Your task to perform on an android device: Open Yahoo.com Image 0: 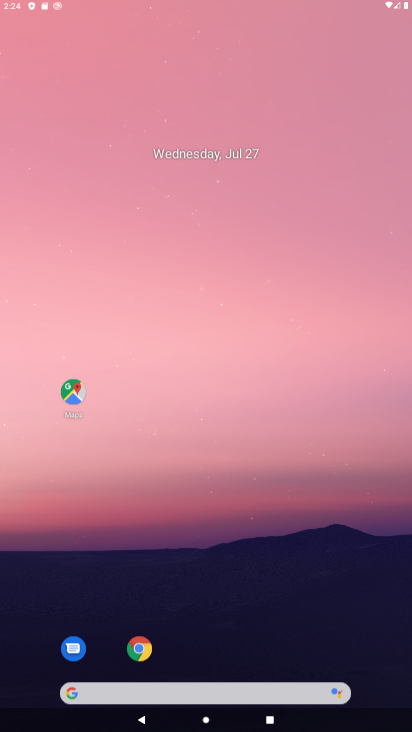
Step 0: press home button
Your task to perform on an android device: Open Yahoo.com Image 1: 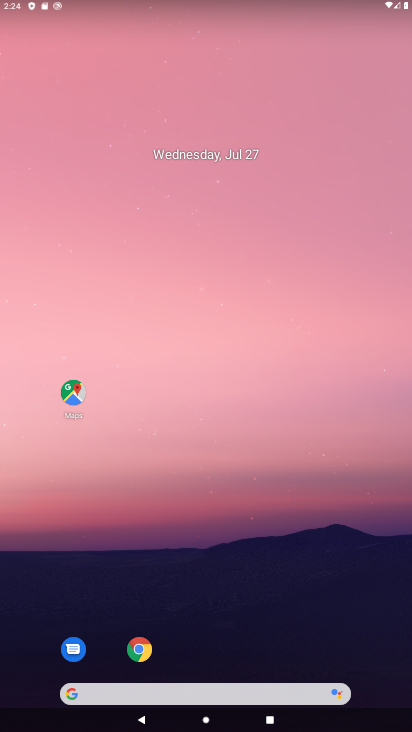
Step 1: drag from (318, 618) to (260, 10)
Your task to perform on an android device: Open Yahoo.com Image 2: 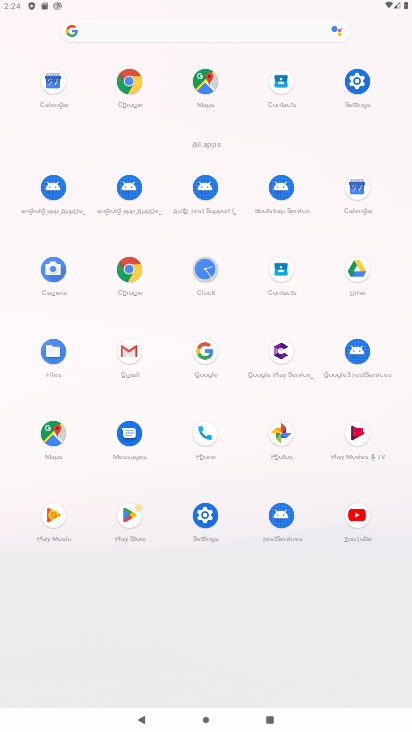
Step 2: click (195, 355)
Your task to perform on an android device: Open Yahoo.com Image 3: 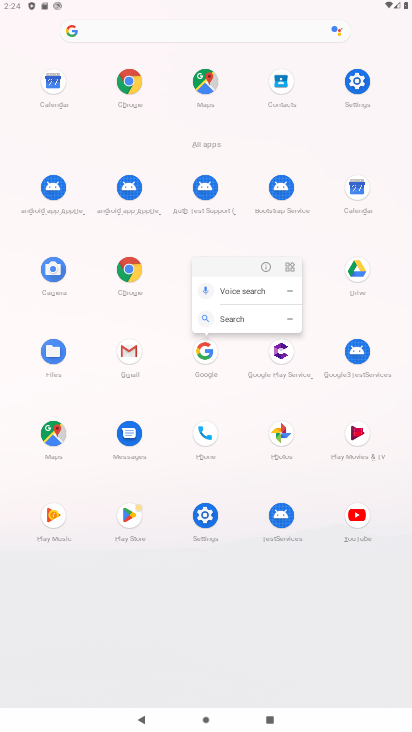
Step 3: click (200, 358)
Your task to perform on an android device: Open Yahoo.com Image 4: 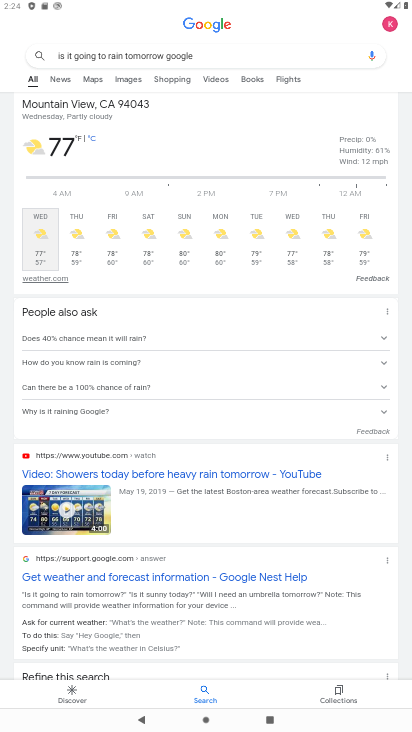
Step 4: press back button
Your task to perform on an android device: Open Yahoo.com Image 5: 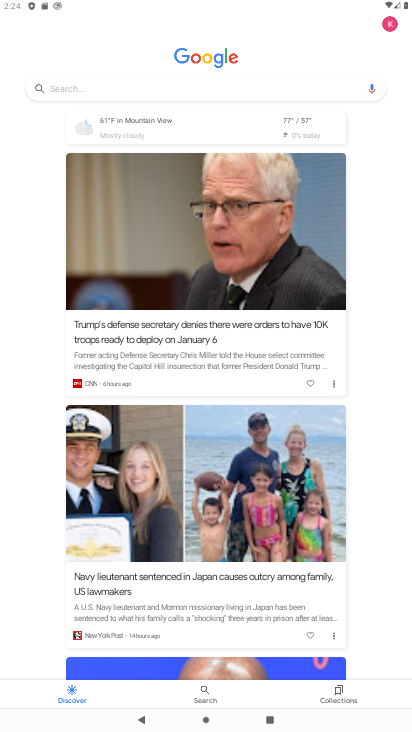
Step 5: click (113, 82)
Your task to perform on an android device: Open Yahoo.com Image 6: 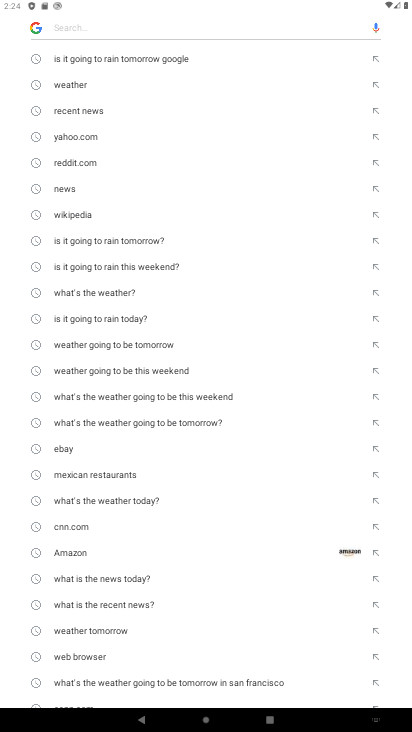
Step 6: type "Yahoo.com"
Your task to perform on an android device: Open Yahoo.com Image 7: 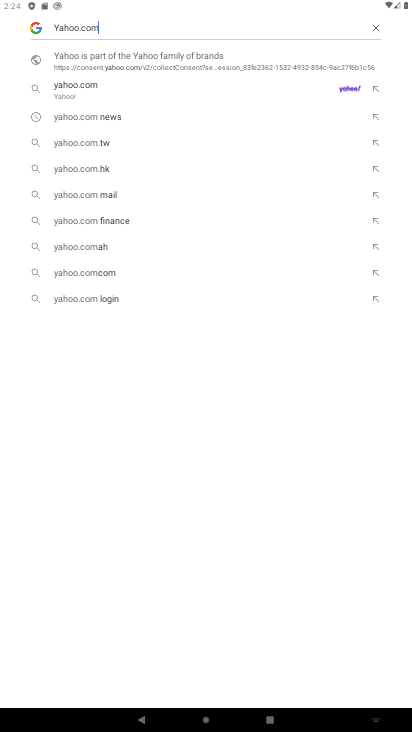
Step 7: click (95, 93)
Your task to perform on an android device: Open Yahoo.com Image 8: 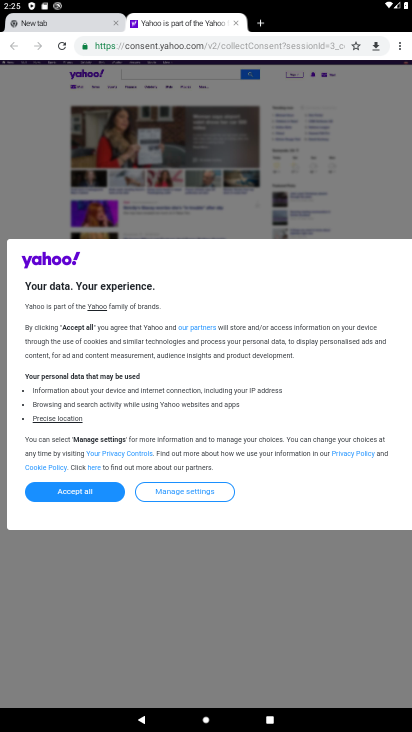
Step 8: task complete